Your task to perform on an android device: What is the speed of a tiger? Image 0: 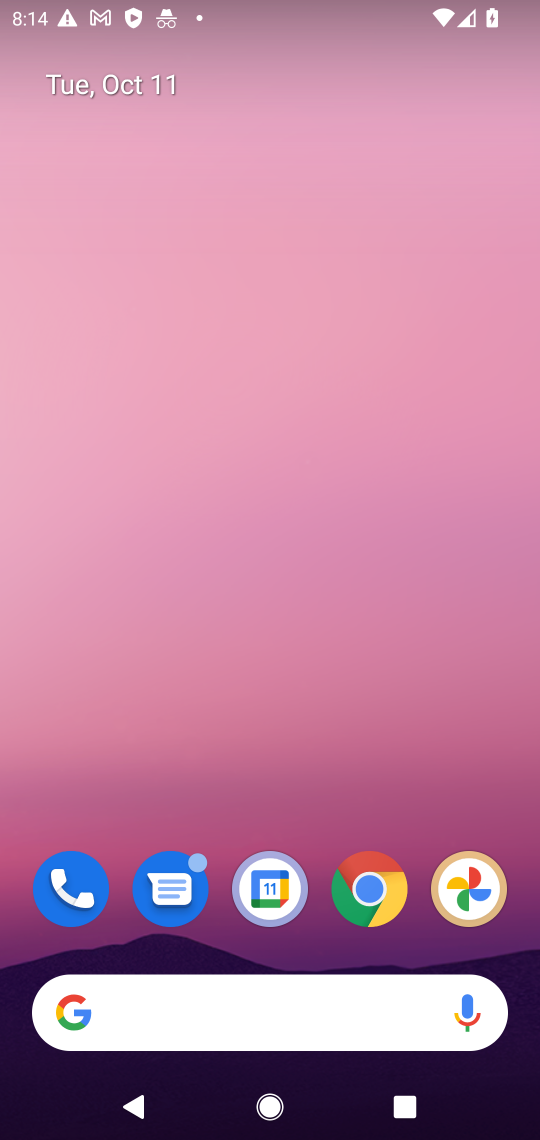
Step 0: click (240, 1004)
Your task to perform on an android device: What is the speed of a tiger? Image 1: 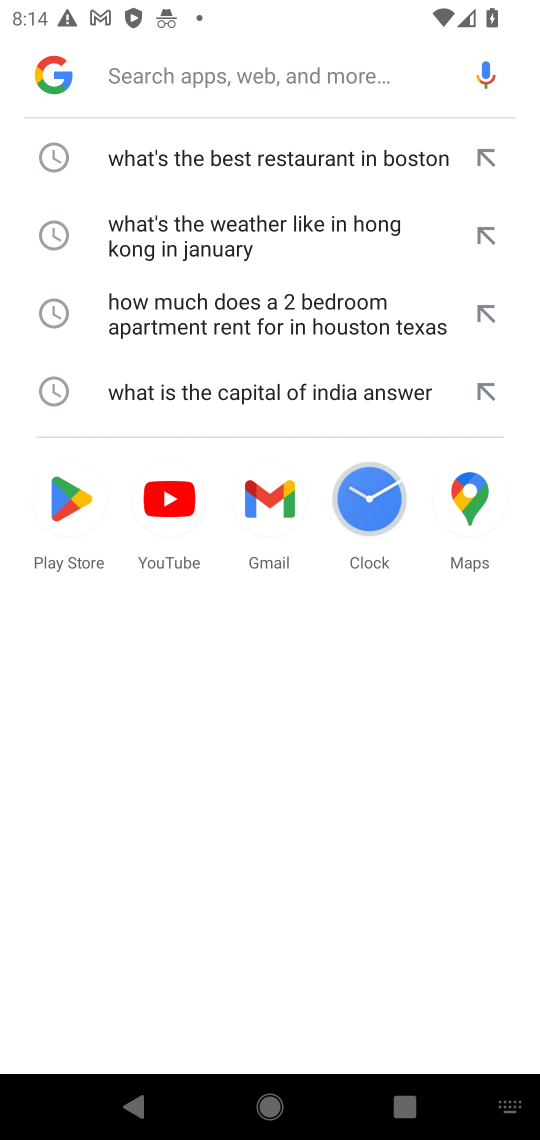
Step 1: click (146, 71)
Your task to perform on an android device: What is the speed of a tiger? Image 2: 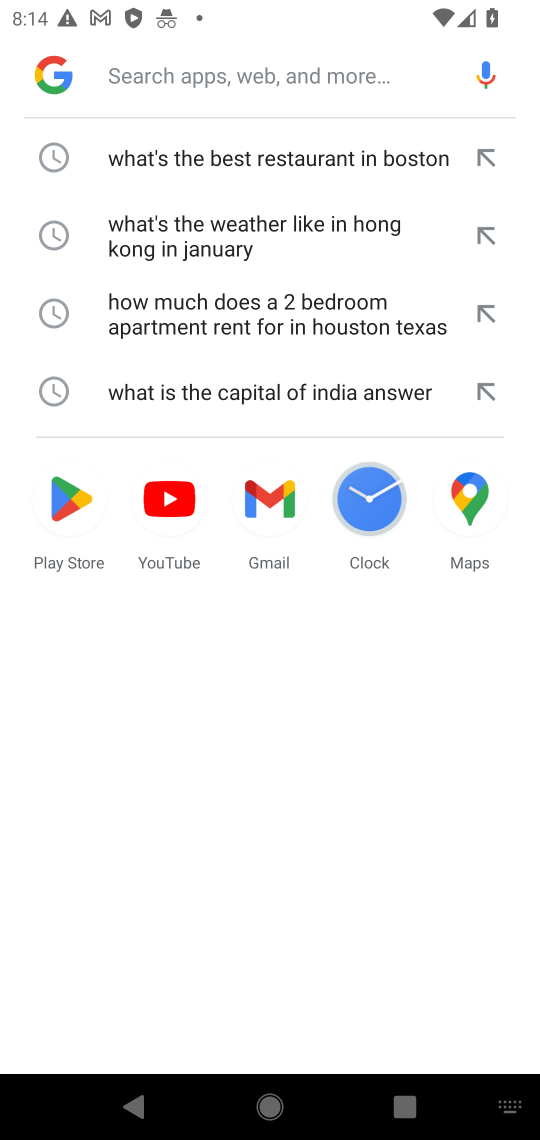
Step 2: type "What is the speed of a tiger?"
Your task to perform on an android device: What is the speed of a tiger? Image 3: 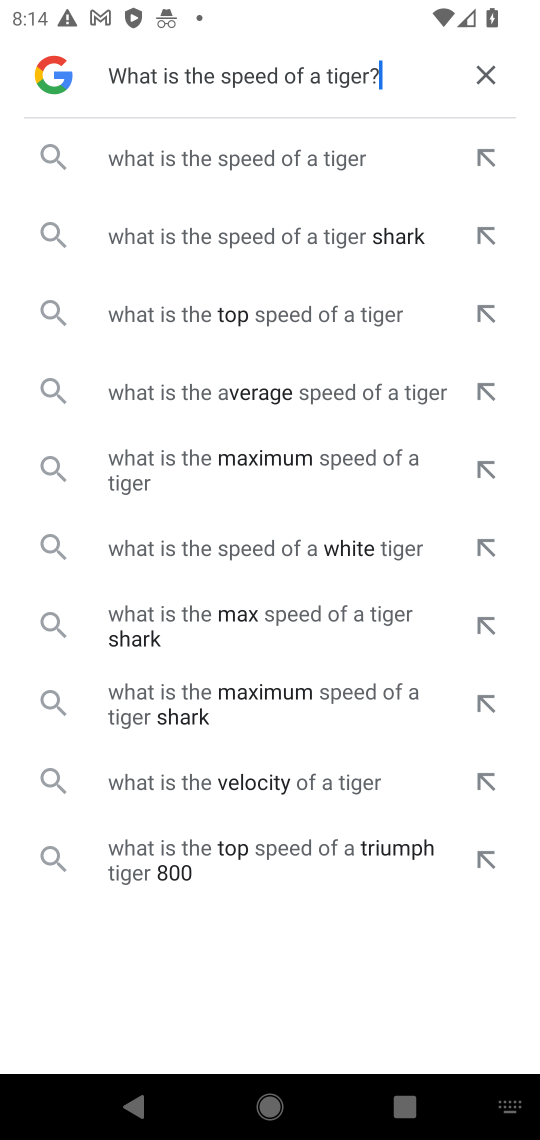
Step 3: click (311, 153)
Your task to perform on an android device: What is the speed of a tiger? Image 4: 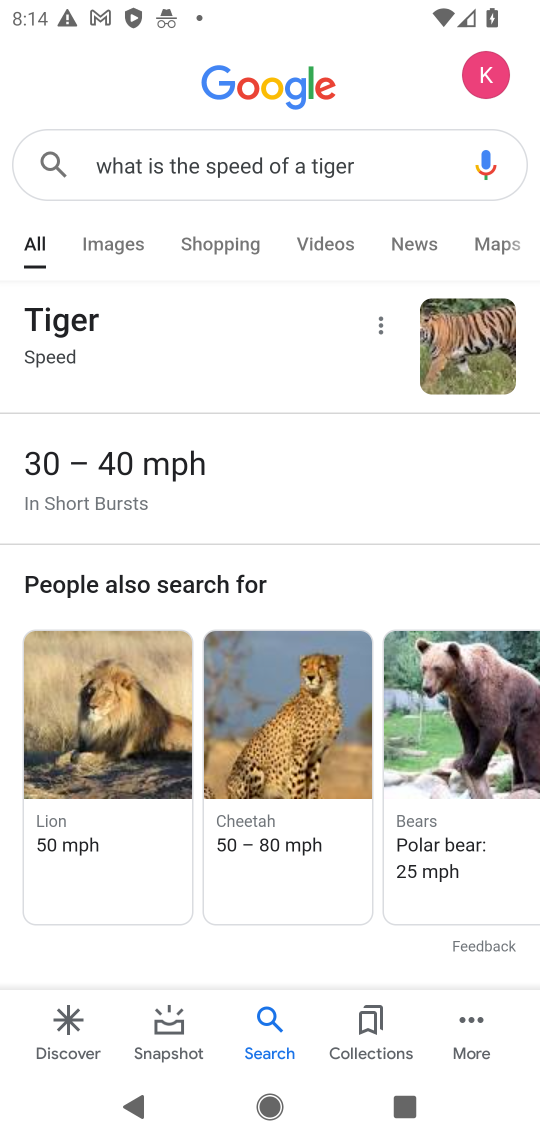
Step 4: task complete